Your task to perform on an android device: Open Chrome and go to the settings page Image 0: 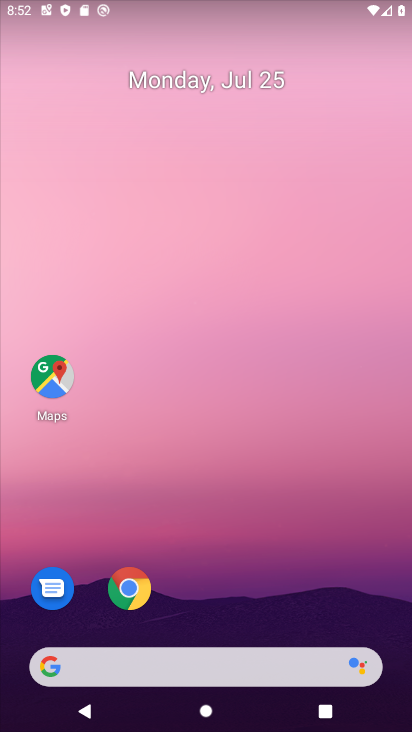
Step 0: drag from (280, 563) to (286, 136)
Your task to perform on an android device: Open Chrome and go to the settings page Image 1: 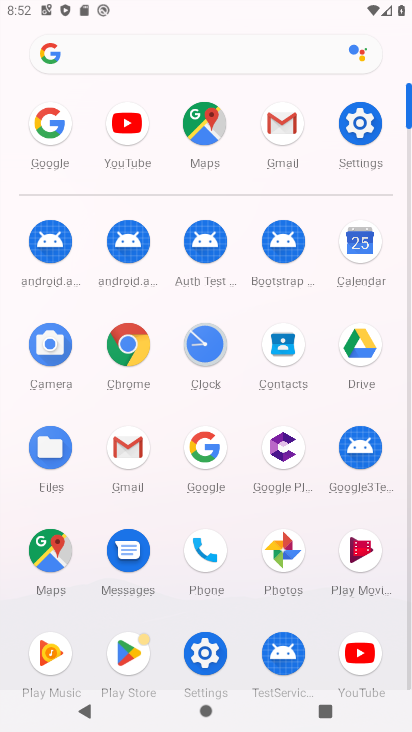
Step 1: click (133, 346)
Your task to perform on an android device: Open Chrome and go to the settings page Image 2: 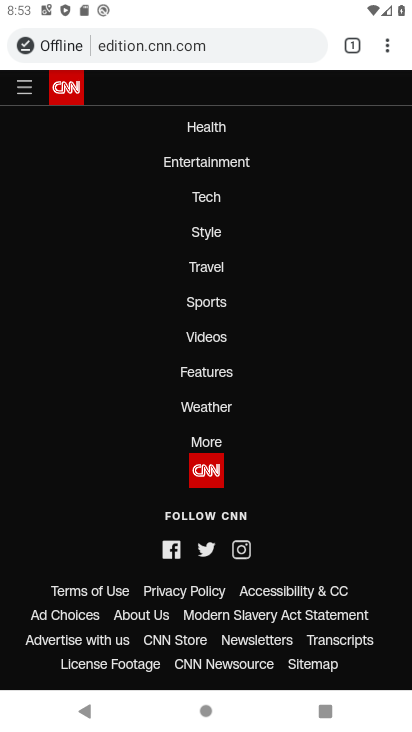
Step 2: click (387, 42)
Your task to perform on an android device: Open Chrome and go to the settings page Image 3: 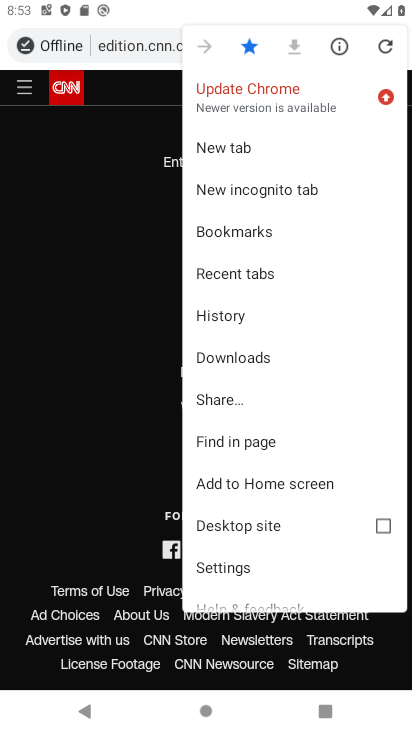
Step 3: click (238, 581)
Your task to perform on an android device: Open Chrome and go to the settings page Image 4: 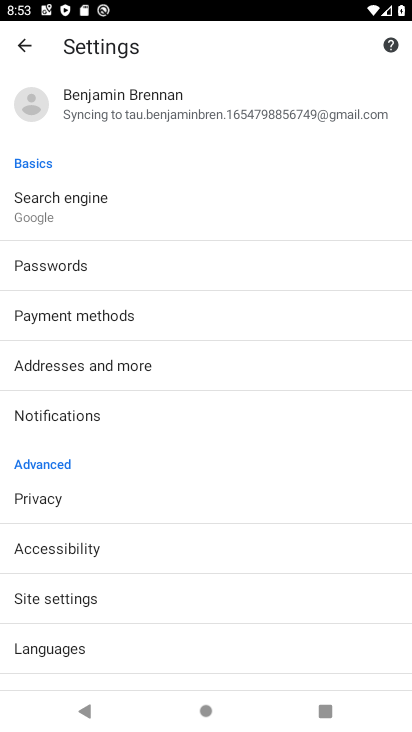
Step 4: task complete